Your task to perform on an android device: turn off smart reply in the gmail app Image 0: 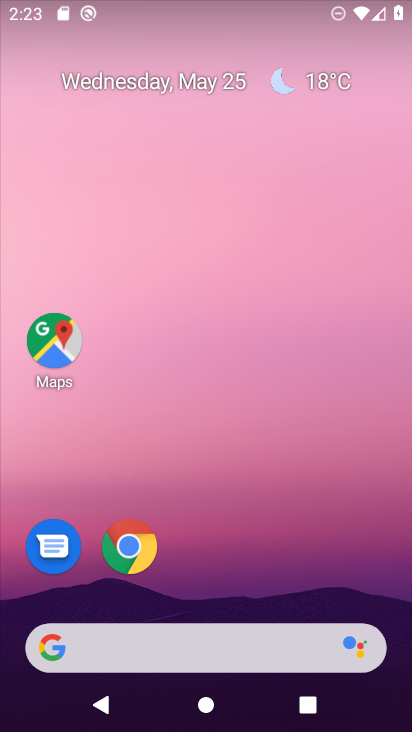
Step 0: drag from (231, 587) to (250, 0)
Your task to perform on an android device: turn off smart reply in the gmail app Image 1: 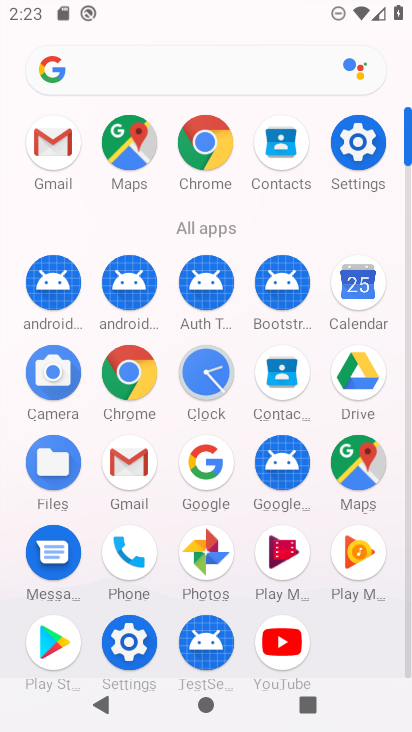
Step 1: click (132, 478)
Your task to perform on an android device: turn off smart reply in the gmail app Image 2: 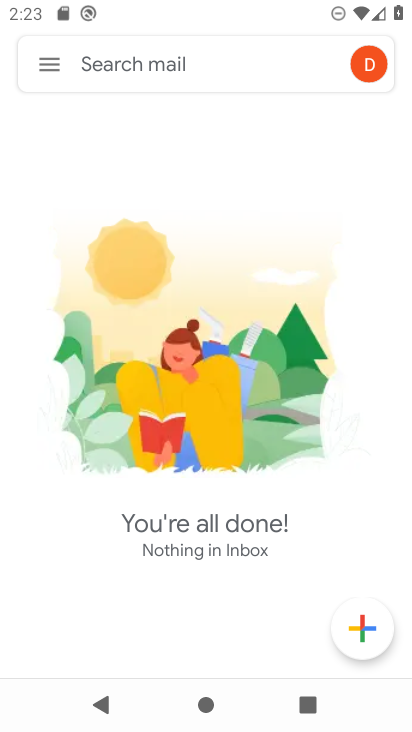
Step 2: click (41, 56)
Your task to perform on an android device: turn off smart reply in the gmail app Image 3: 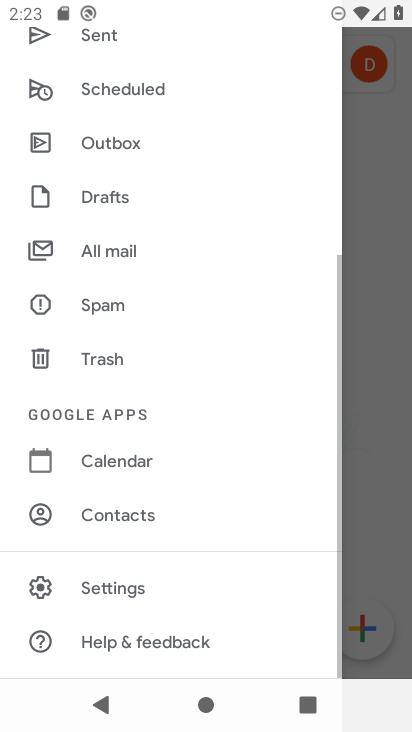
Step 3: click (112, 589)
Your task to perform on an android device: turn off smart reply in the gmail app Image 4: 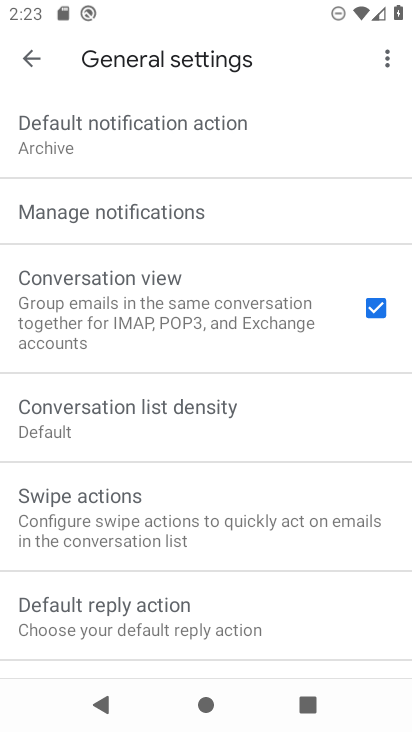
Step 4: drag from (166, 586) to (187, 342)
Your task to perform on an android device: turn off smart reply in the gmail app Image 5: 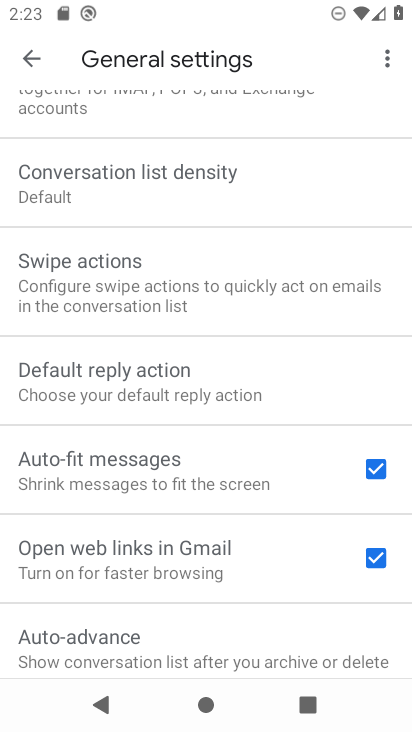
Step 5: drag from (179, 554) to (192, 377)
Your task to perform on an android device: turn off smart reply in the gmail app Image 6: 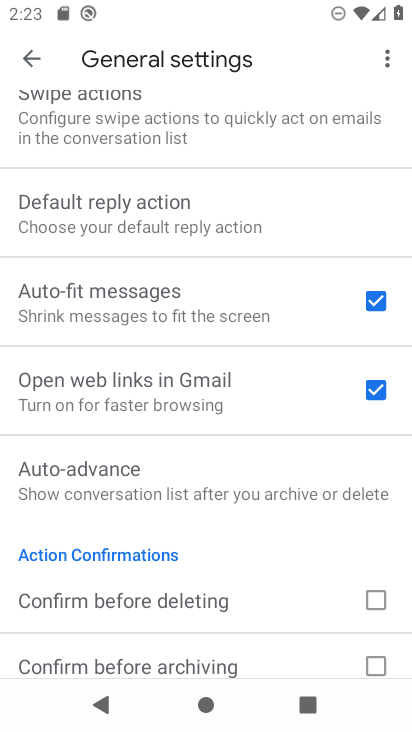
Step 6: drag from (186, 576) to (197, 371)
Your task to perform on an android device: turn off smart reply in the gmail app Image 7: 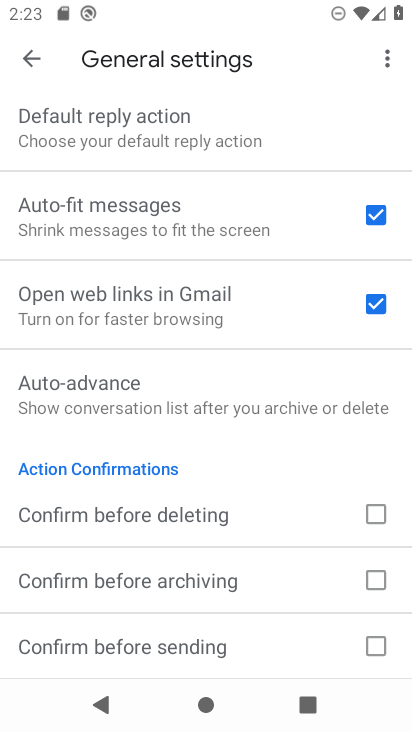
Step 7: click (39, 59)
Your task to perform on an android device: turn off smart reply in the gmail app Image 8: 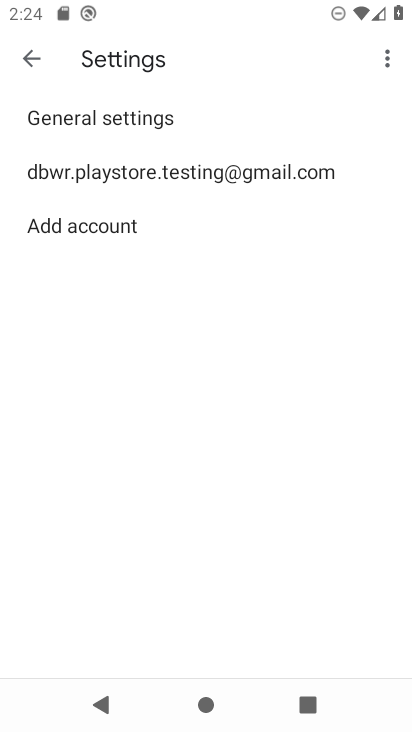
Step 8: click (125, 163)
Your task to perform on an android device: turn off smart reply in the gmail app Image 9: 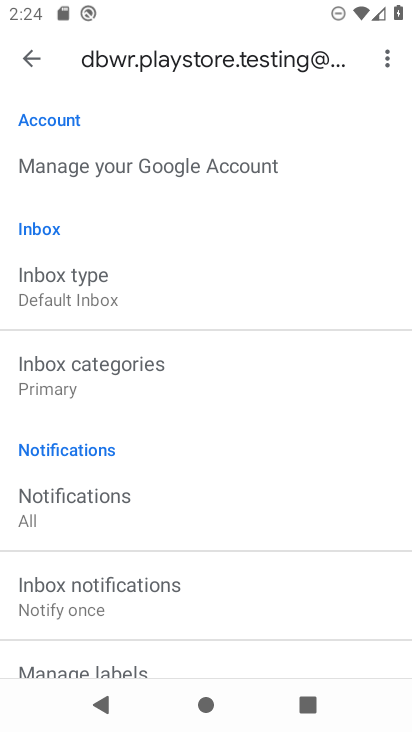
Step 9: drag from (133, 507) to (163, 215)
Your task to perform on an android device: turn off smart reply in the gmail app Image 10: 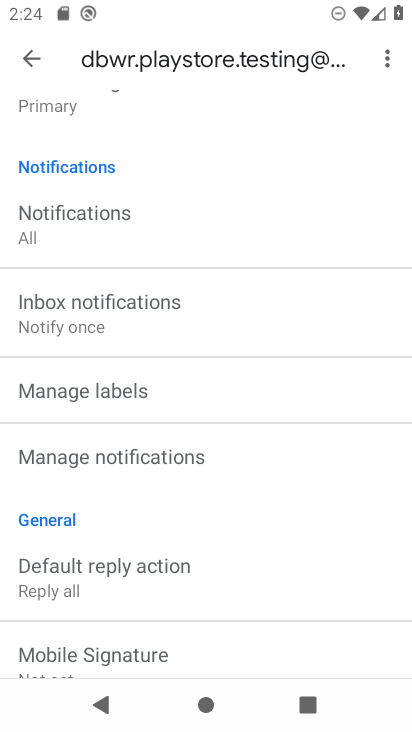
Step 10: drag from (163, 541) to (188, 369)
Your task to perform on an android device: turn off smart reply in the gmail app Image 11: 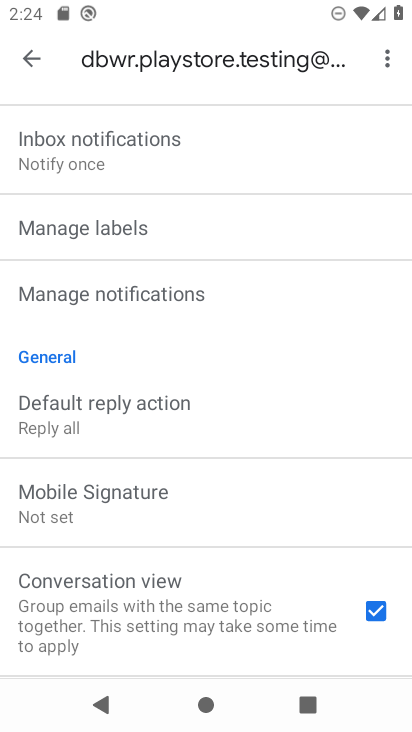
Step 11: drag from (140, 618) to (198, 187)
Your task to perform on an android device: turn off smart reply in the gmail app Image 12: 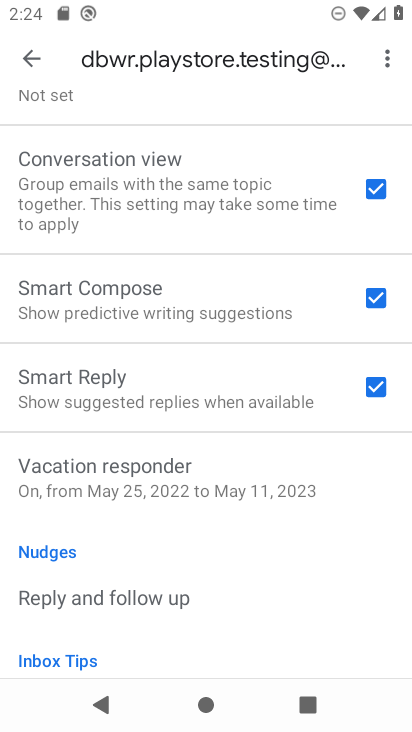
Step 12: click (383, 390)
Your task to perform on an android device: turn off smart reply in the gmail app Image 13: 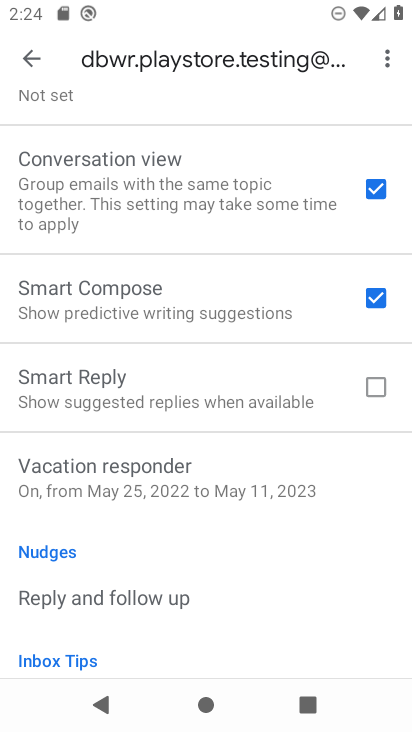
Step 13: task complete